Your task to perform on an android device: Open Yahoo.com Image 0: 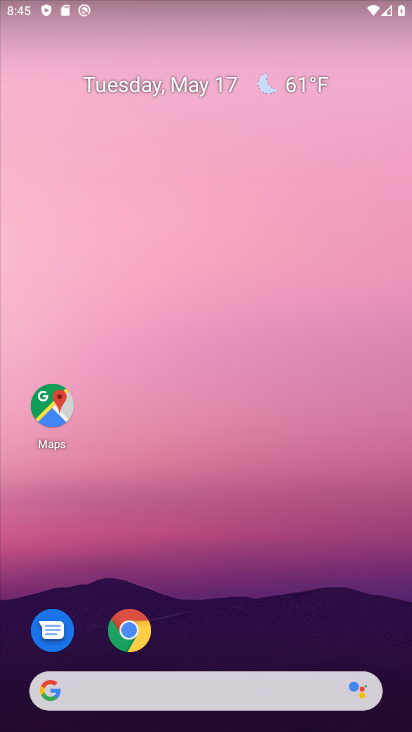
Step 0: click (123, 636)
Your task to perform on an android device: Open Yahoo.com Image 1: 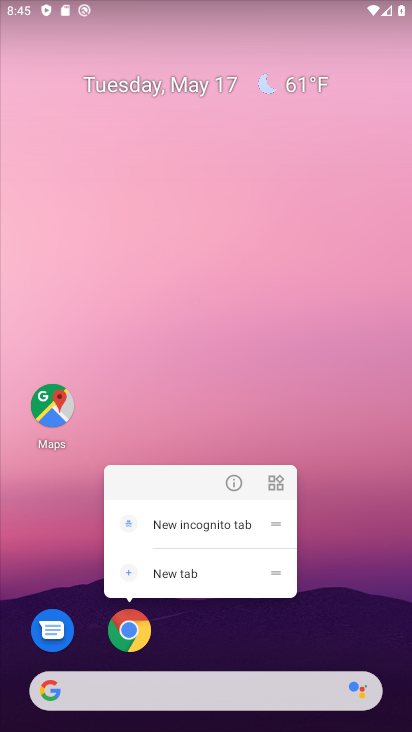
Step 1: click (128, 636)
Your task to perform on an android device: Open Yahoo.com Image 2: 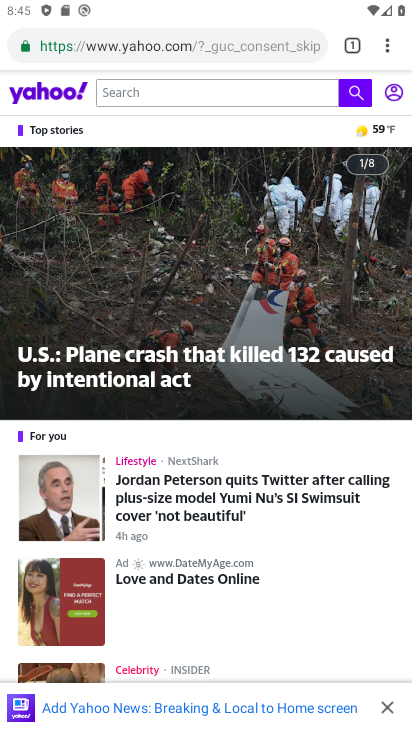
Step 2: task complete